Your task to perform on an android device: Open the web browser Image 0: 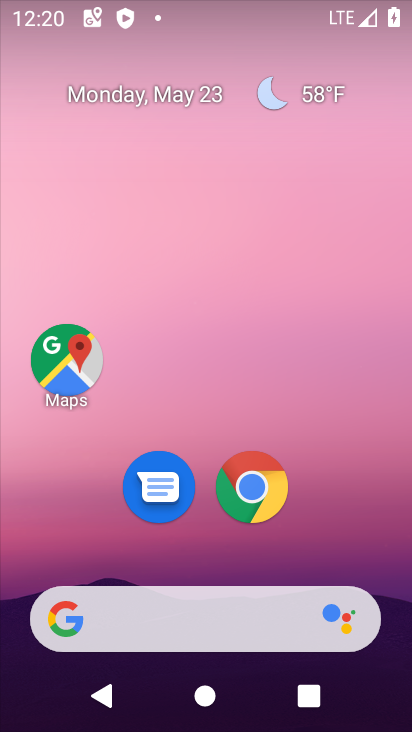
Step 0: click (252, 485)
Your task to perform on an android device: Open the web browser Image 1: 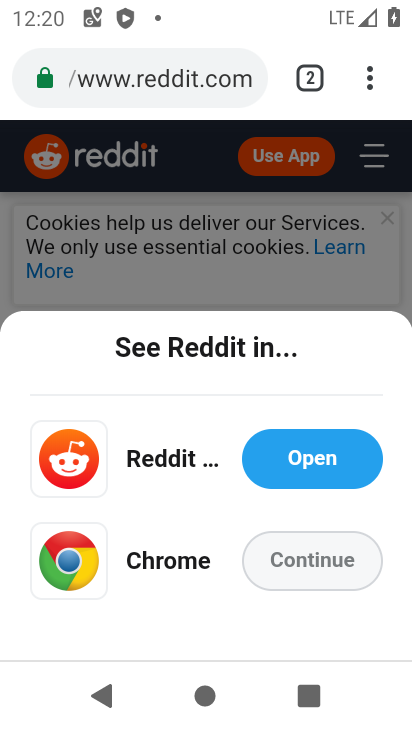
Step 1: click (305, 268)
Your task to perform on an android device: Open the web browser Image 2: 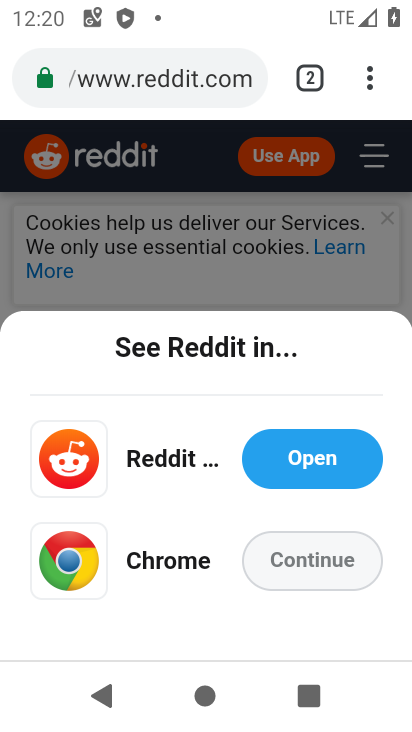
Step 2: task complete